Your task to perform on an android device: read, delete, or share a saved page in the chrome app Image 0: 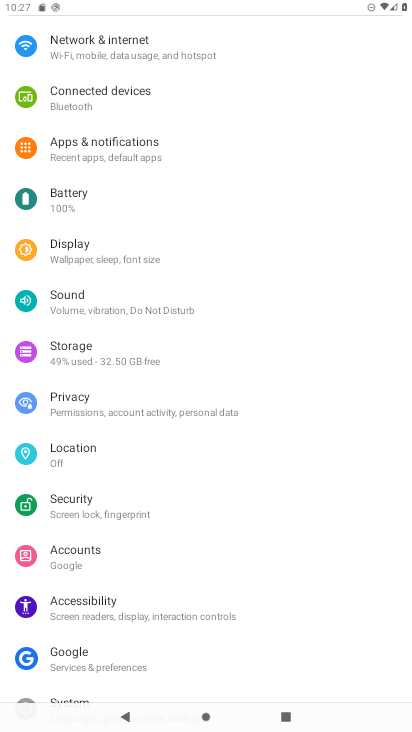
Step 0: press home button
Your task to perform on an android device: read, delete, or share a saved page in the chrome app Image 1: 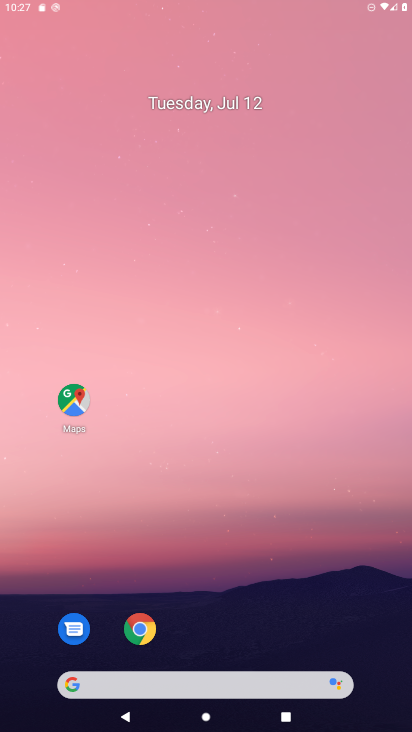
Step 1: drag from (262, 537) to (275, 74)
Your task to perform on an android device: read, delete, or share a saved page in the chrome app Image 2: 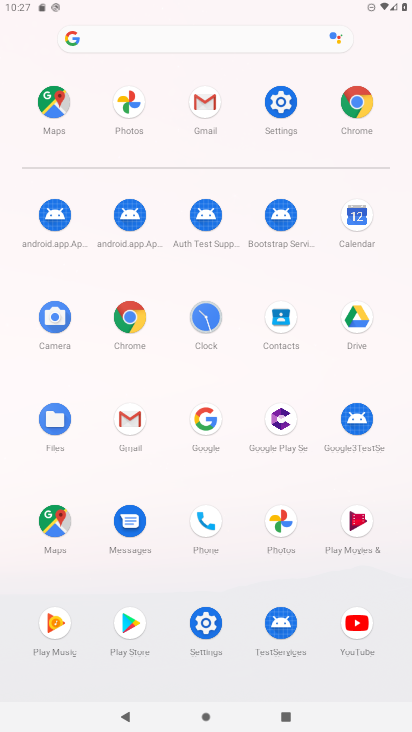
Step 2: click (136, 314)
Your task to perform on an android device: read, delete, or share a saved page in the chrome app Image 3: 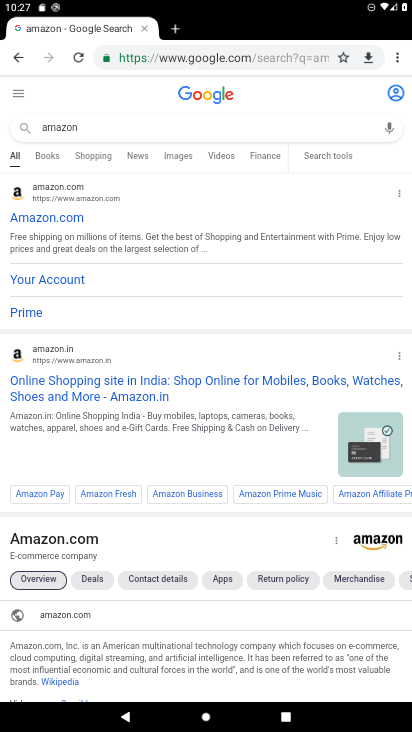
Step 3: task complete